Your task to perform on an android device: turn vacation reply on in the gmail app Image 0: 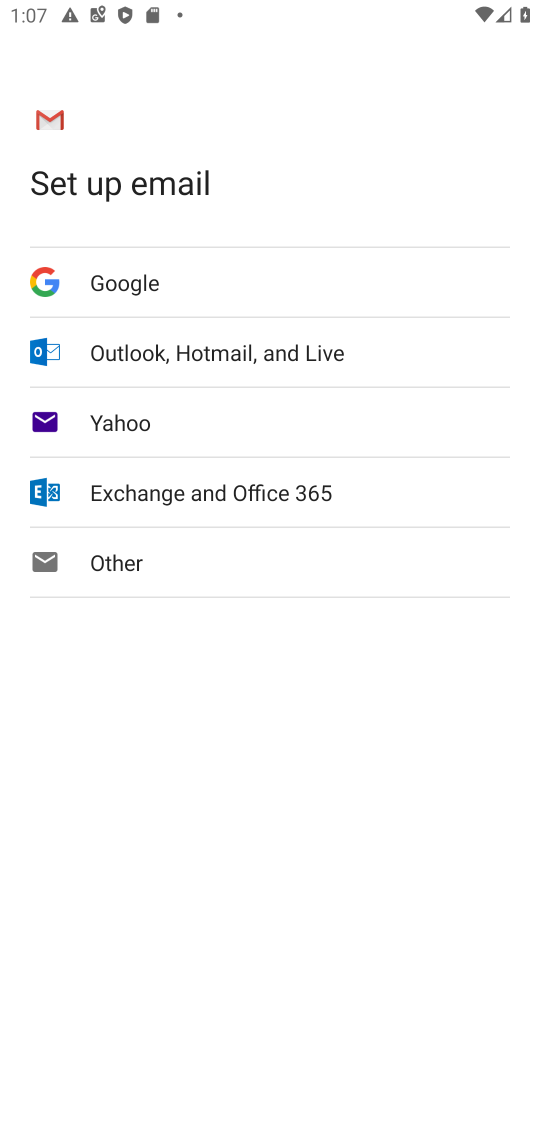
Step 0: press home button
Your task to perform on an android device: turn vacation reply on in the gmail app Image 1: 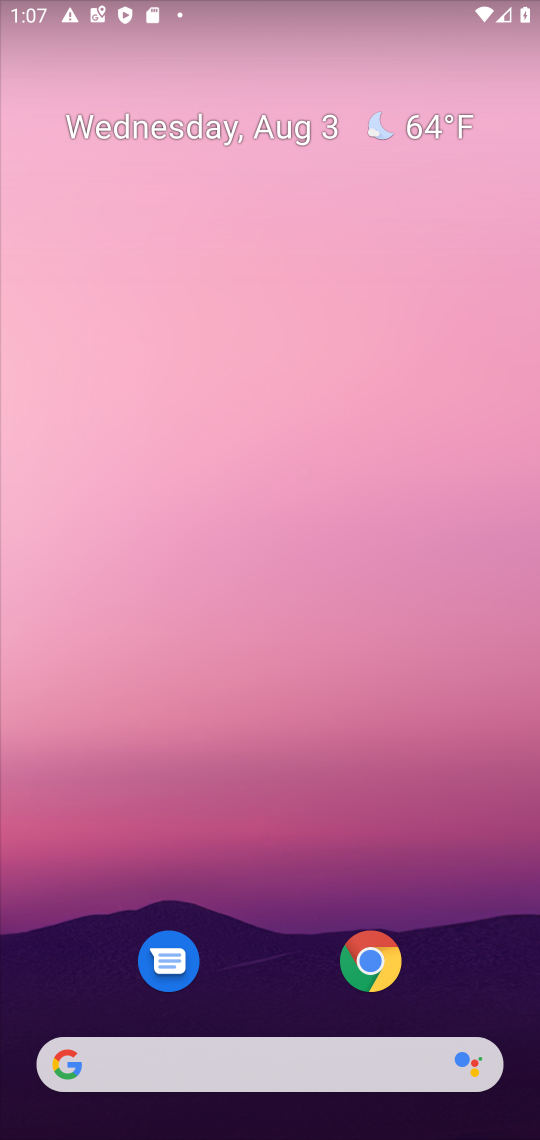
Step 1: drag from (282, 914) to (251, 20)
Your task to perform on an android device: turn vacation reply on in the gmail app Image 2: 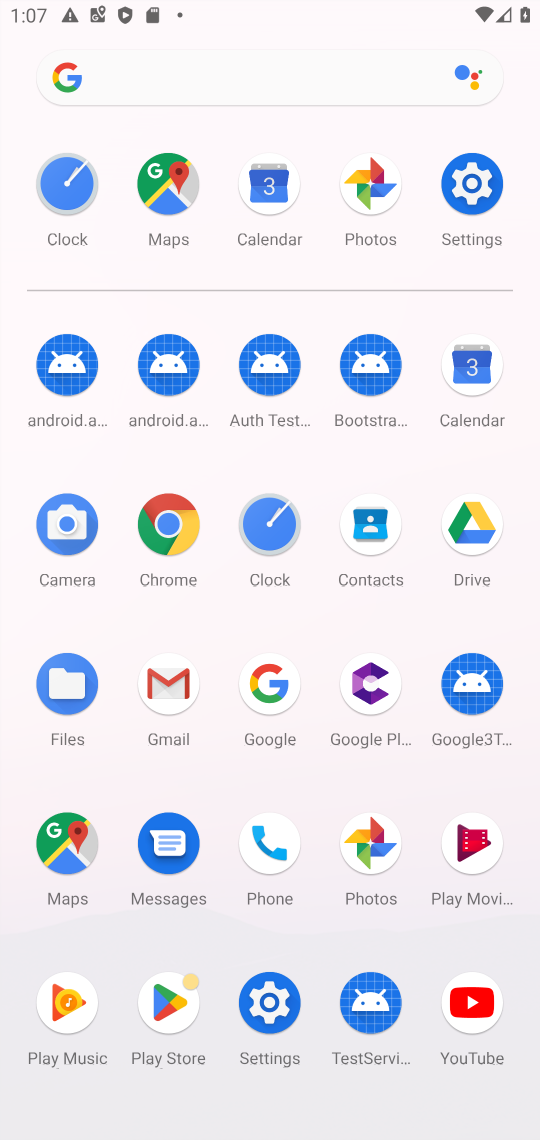
Step 2: click (170, 690)
Your task to perform on an android device: turn vacation reply on in the gmail app Image 3: 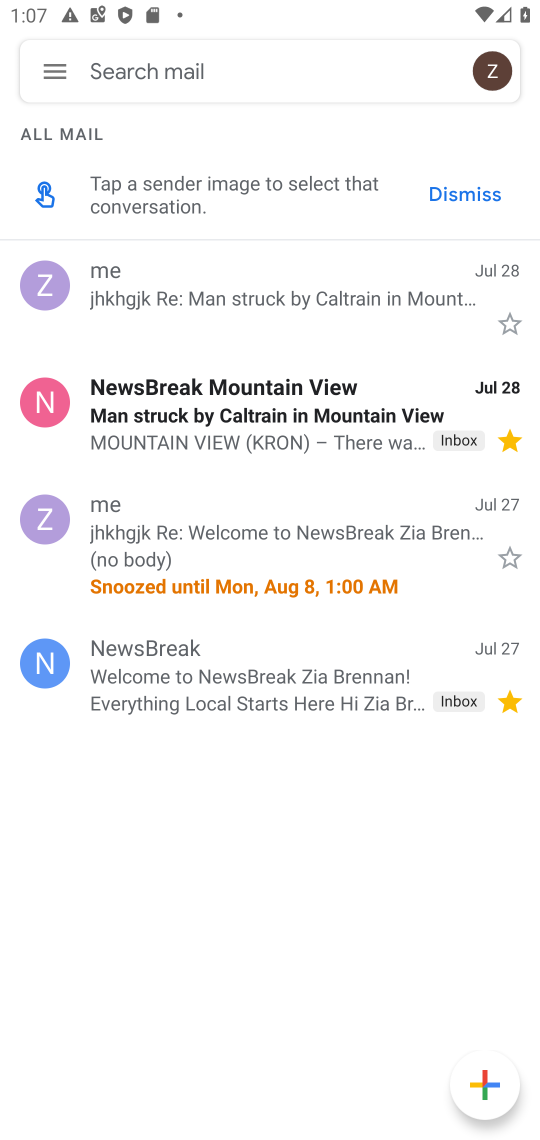
Step 3: click (47, 67)
Your task to perform on an android device: turn vacation reply on in the gmail app Image 4: 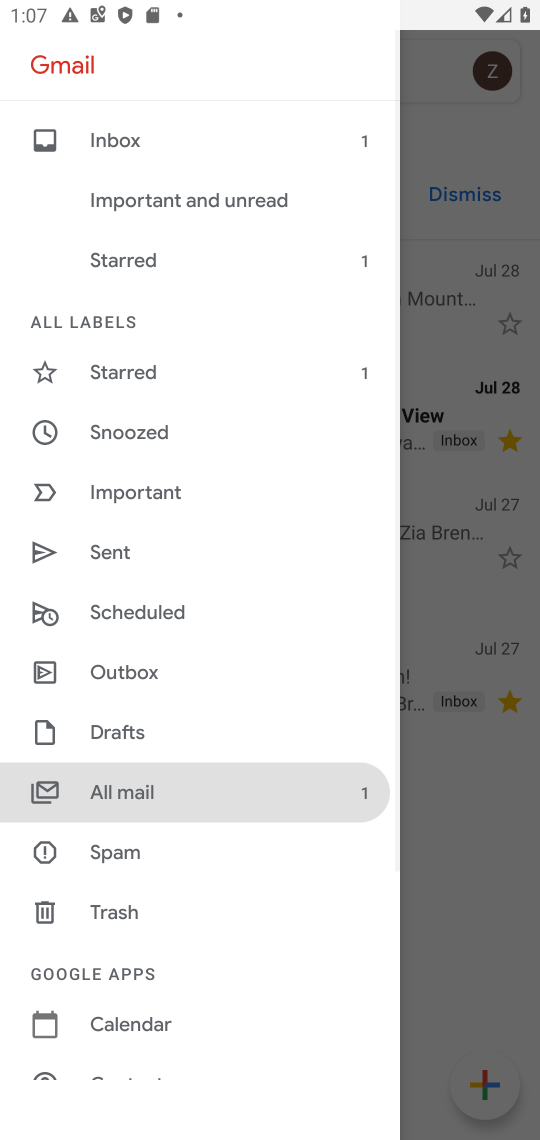
Step 4: drag from (231, 731) to (244, 278)
Your task to perform on an android device: turn vacation reply on in the gmail app Image 5: 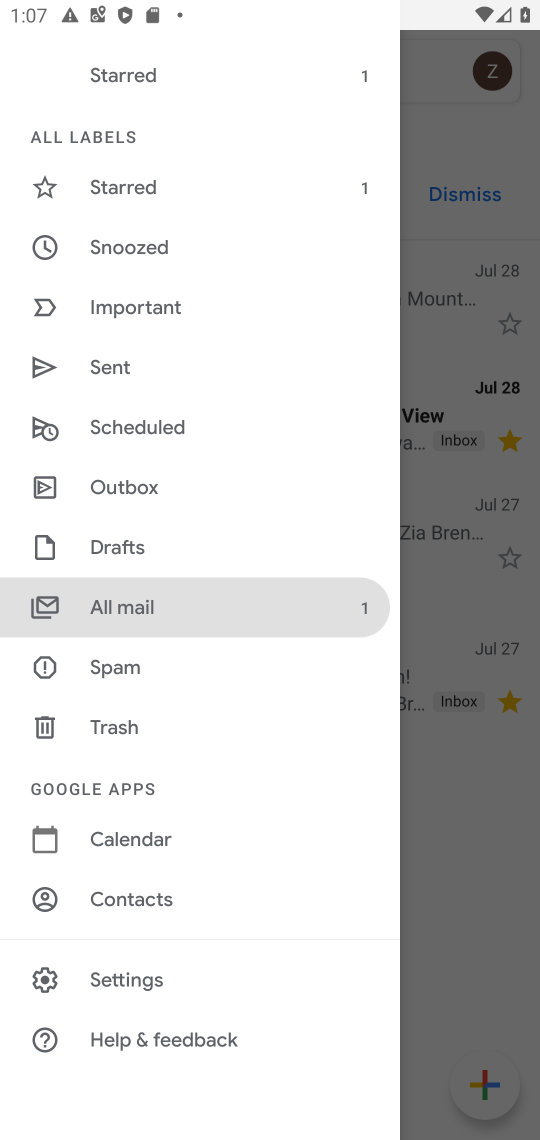
Step 5: click (148, 983)
Your task to perform on an android device: turn vacation reply on in the gmail app Image 6: 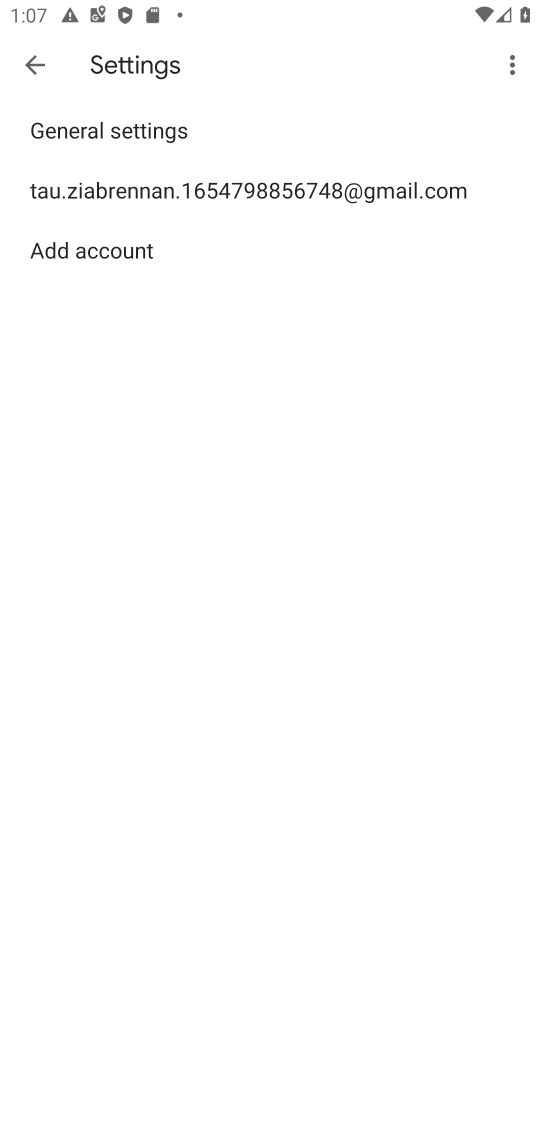
Step 6: click (221, 195)
Your task to perform on an android device: turn vacation reply on in the gmail app Image 7: 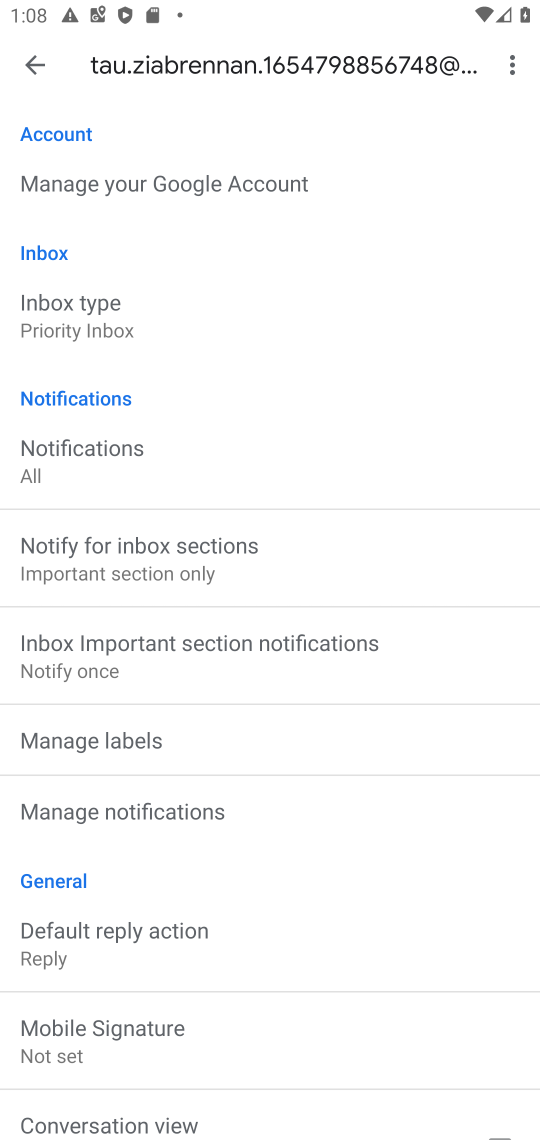
Step 7: drag from (354, 864) to (325, 315)
Your task to perform on an android device: turn vacation reply on in the gmail app Image 8: 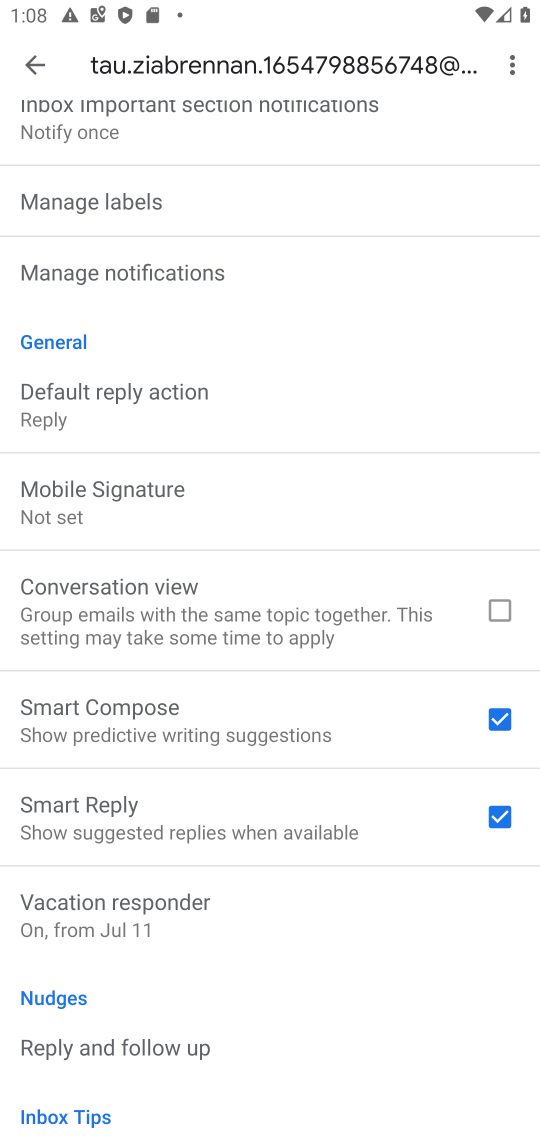
Step 8: click (140, 913)
Your task to perform on an android device: turn vacation reply on in the gmail app Image 9: 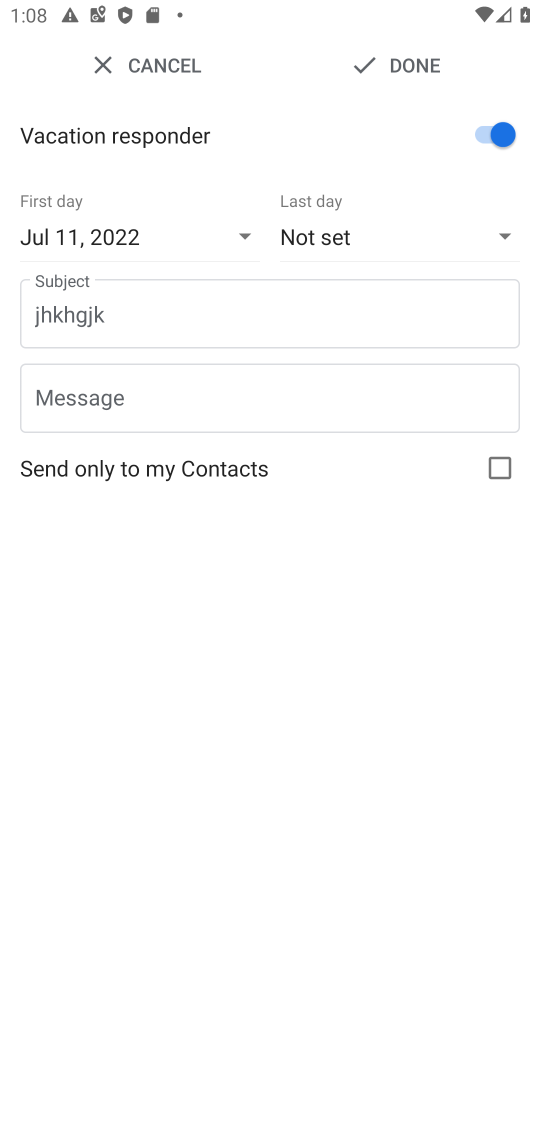
Step 9: click (365, 65)
Your task to perform on an android device: turn vacation reply on in the gmail app Image 10: 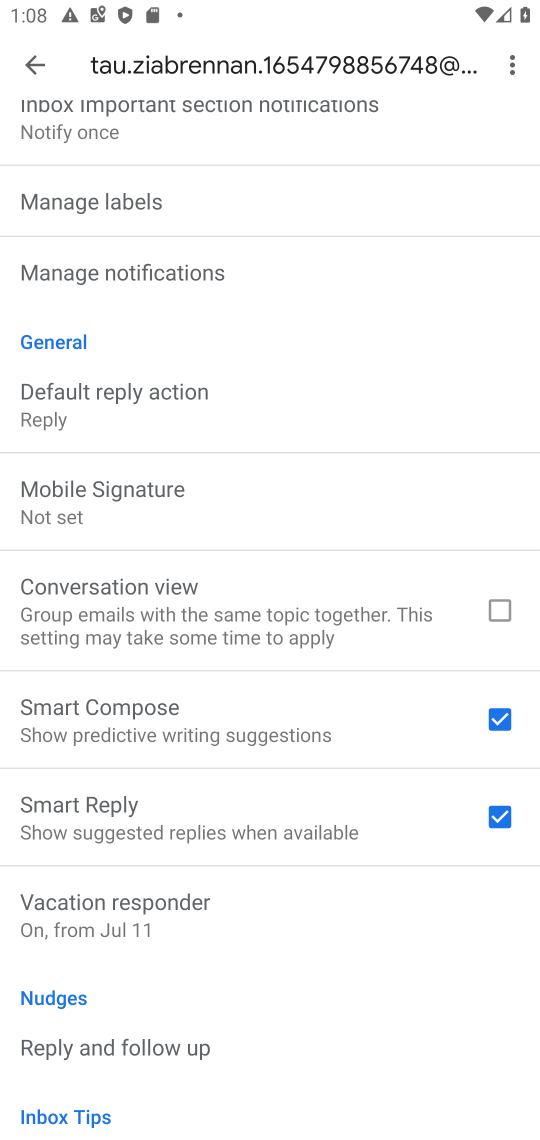
Step 10: task complete